Your task to perform on an android device: turn off smart reply in the gmail app Image 0: 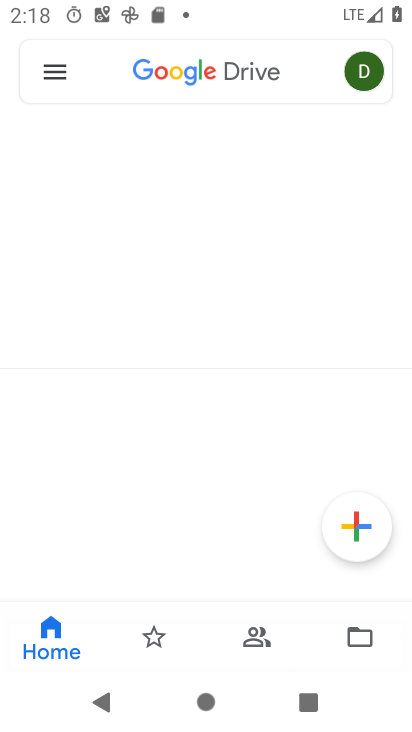
Step 0: drag from (283, 623) to (370, 151)
Your task to perform on an android device: turn off smart reply in the gmail app Image 1: 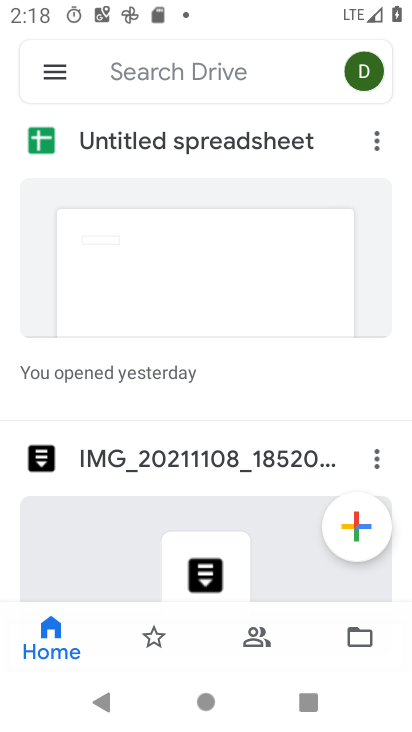
Step 1: press home button
Your task to perform on an android device: turn off smart reply in the gmail app Image 2: 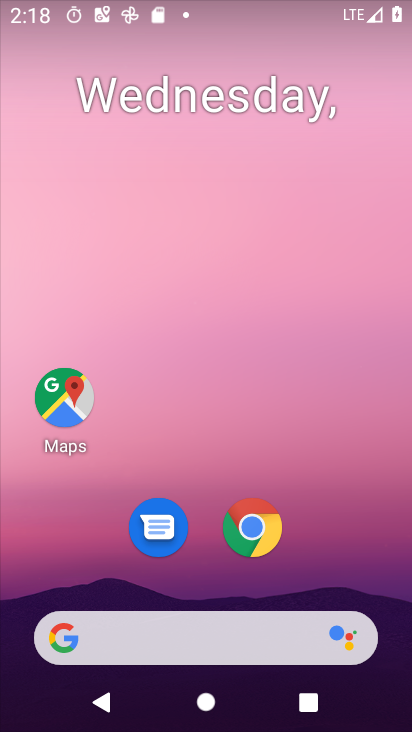
Step 2: drag from (227, 616) to (369, 8)
Your task to perform on an android device: turn off smart reply in the gmail app Image 3: 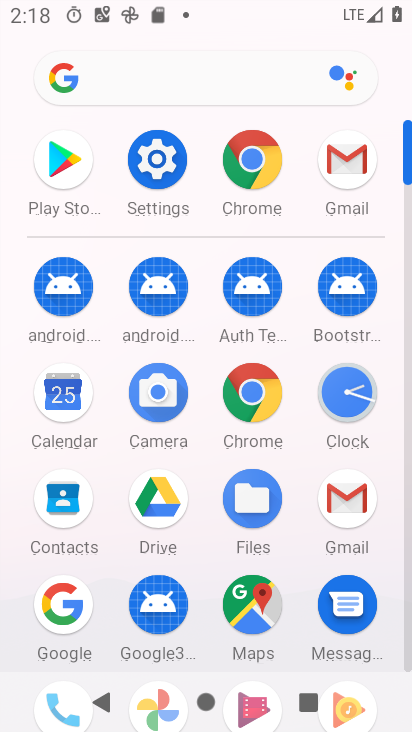
Step 3: click (356, 502)
Your task to perform on an android device: turn off smart reply in the gmail app Image 4: 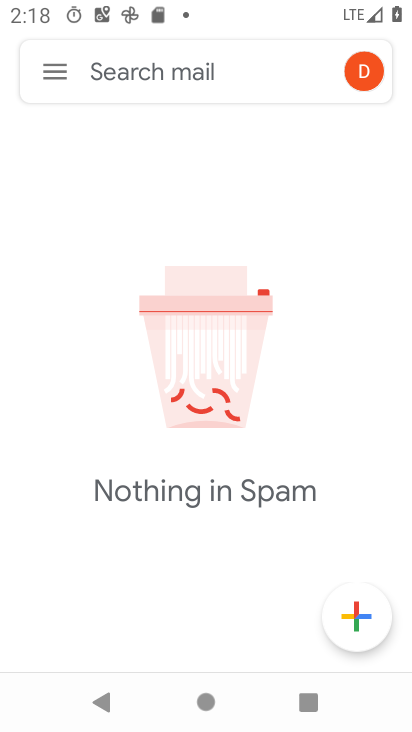
Step 4: click (65, 60)
Your task to perform on an android device: turn off smart reply in the gmail app Image 5: 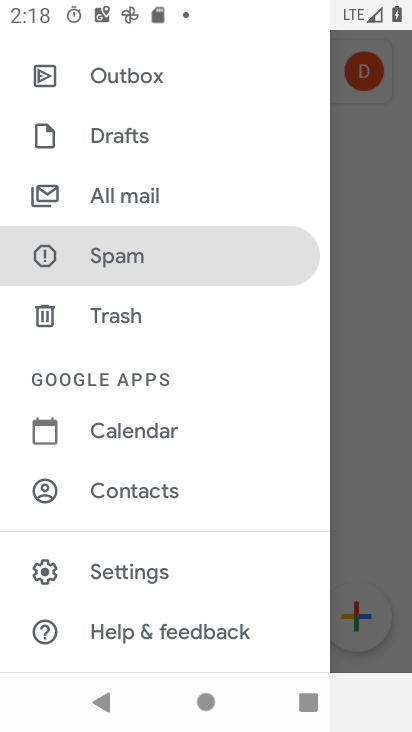
Step 5: click (155, 576)
Your task to perform on an android device: turn off smart reply in the gmail app Image 6: 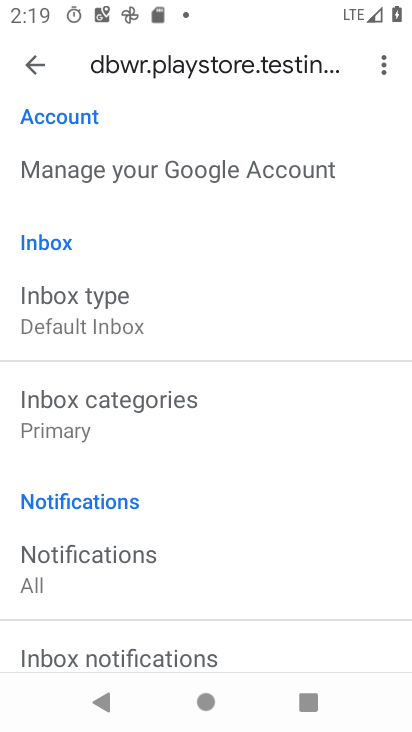
Step 6: drag from (152, 614) to (195, 176)
Your task to perform on an android device: turn off smart reply in the gmail app Image 7: 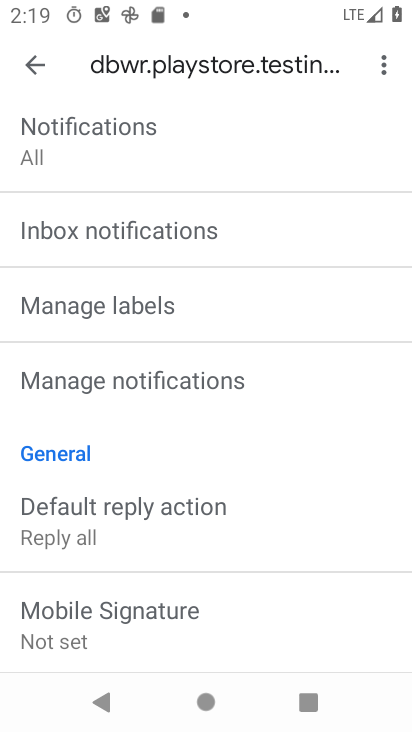
Step 7: drag from (183, 565) to (215, 201)
Your task to perform on an android device: turn off smart reply in the gmail app Image 8: 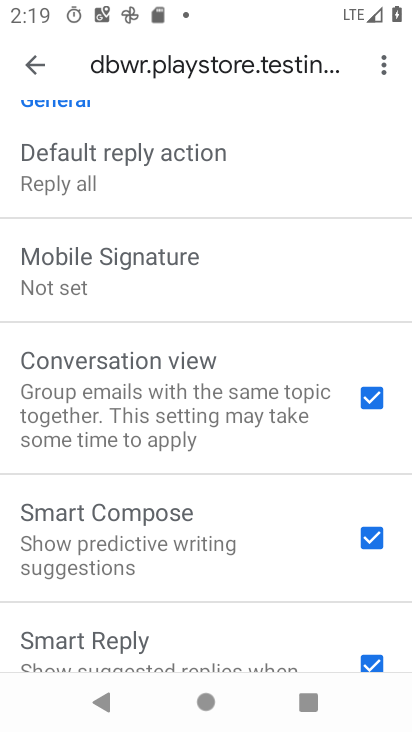
Step 8: click (369, 657)
Your task to perform on an android device: turn off smart reply in the gmail app Image 9: 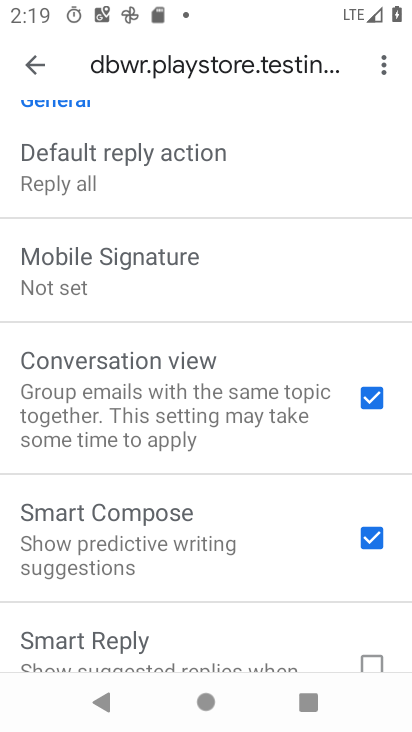
Step 9: task complete